Your task to perform on an android device: Open Maps and search for coffee Image 0: 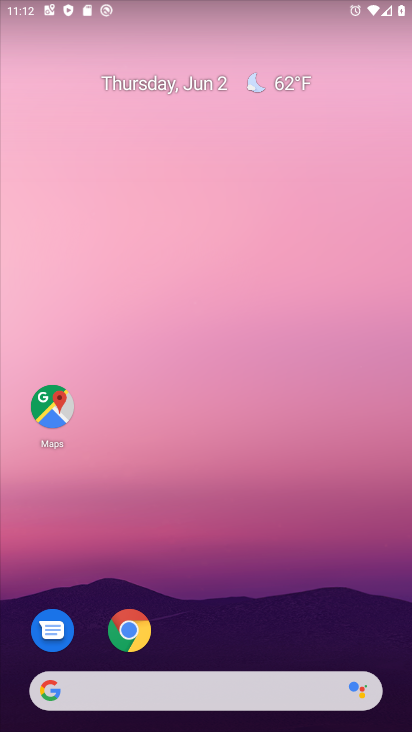
Step 0: press home button
Your task to perform on an android device: Open Maps and search for coffee Image 1: 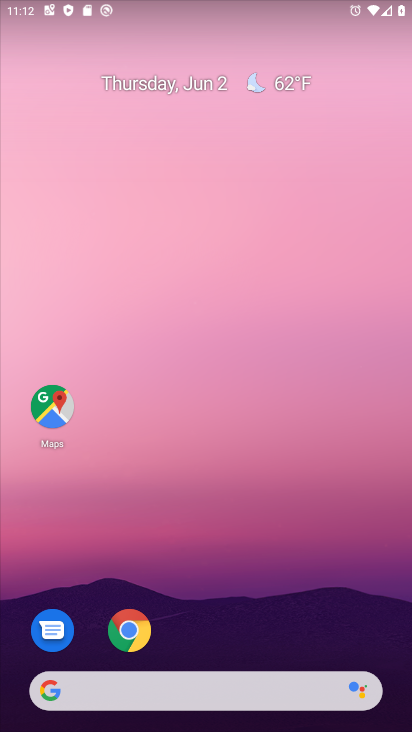
Step 1: click (53, 414)
Your task to perform on an android device: Open Maps and search for coffee Image 2: 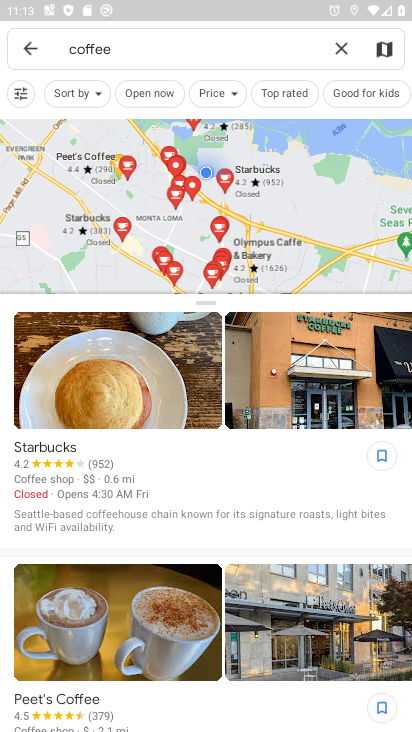
Step 2: task complete